Your task to perform on an android device: remove spam from my inbox in the gmail app Image 0: 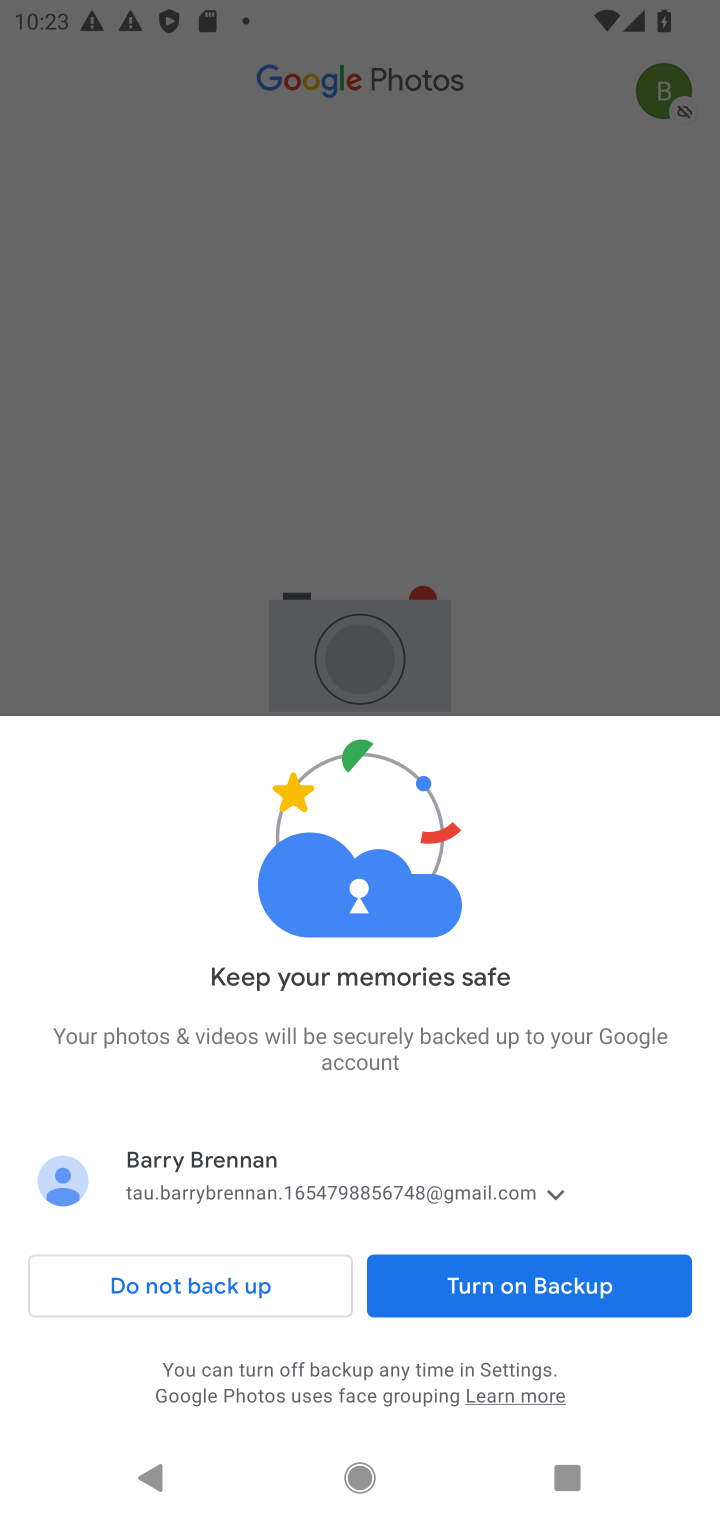
Step 0: click (240, 1291)
Your task to perform on an android device: remove spam from my inbox in the gmail app Image 1: 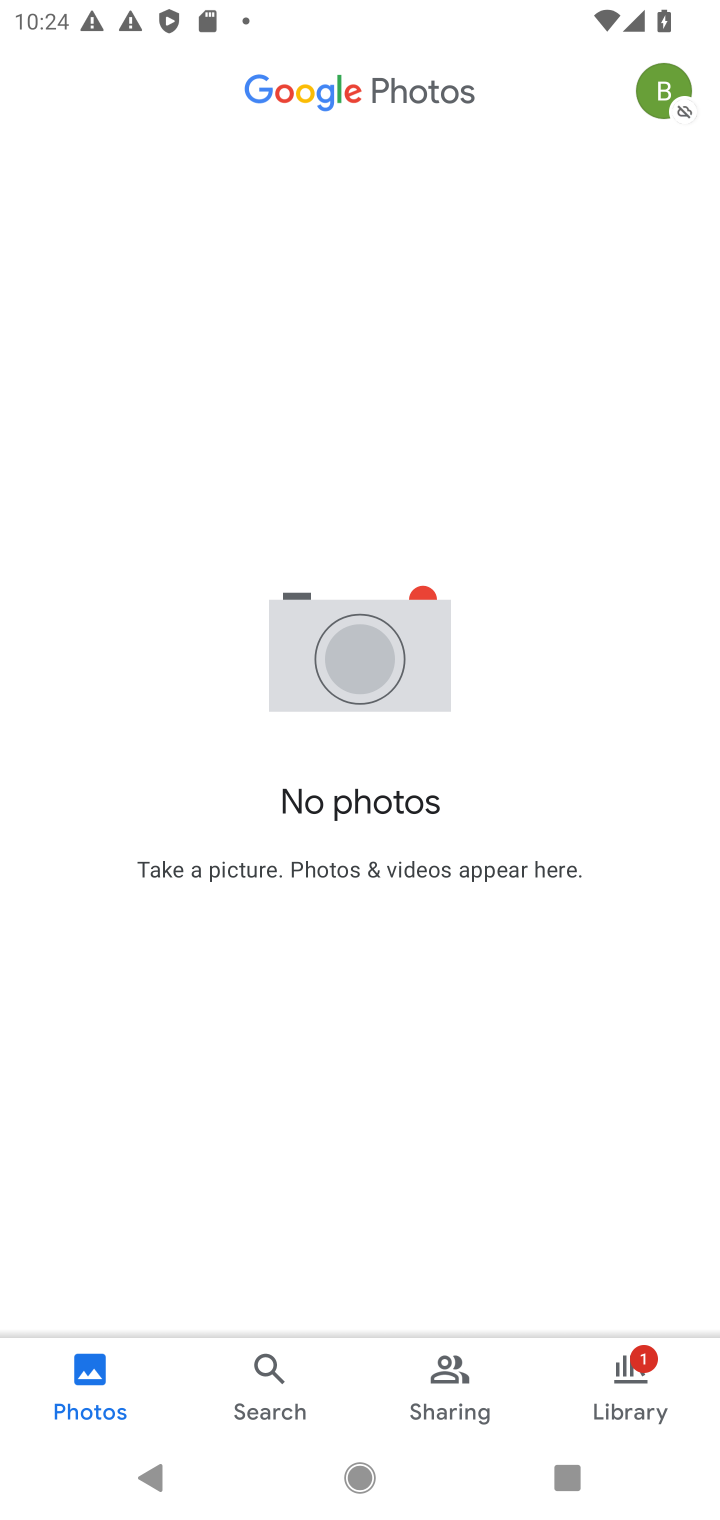
Step 1: click (368, 1471)
Your task to perform on an android device: remove spam from my inbox in the gmail app Image 2: 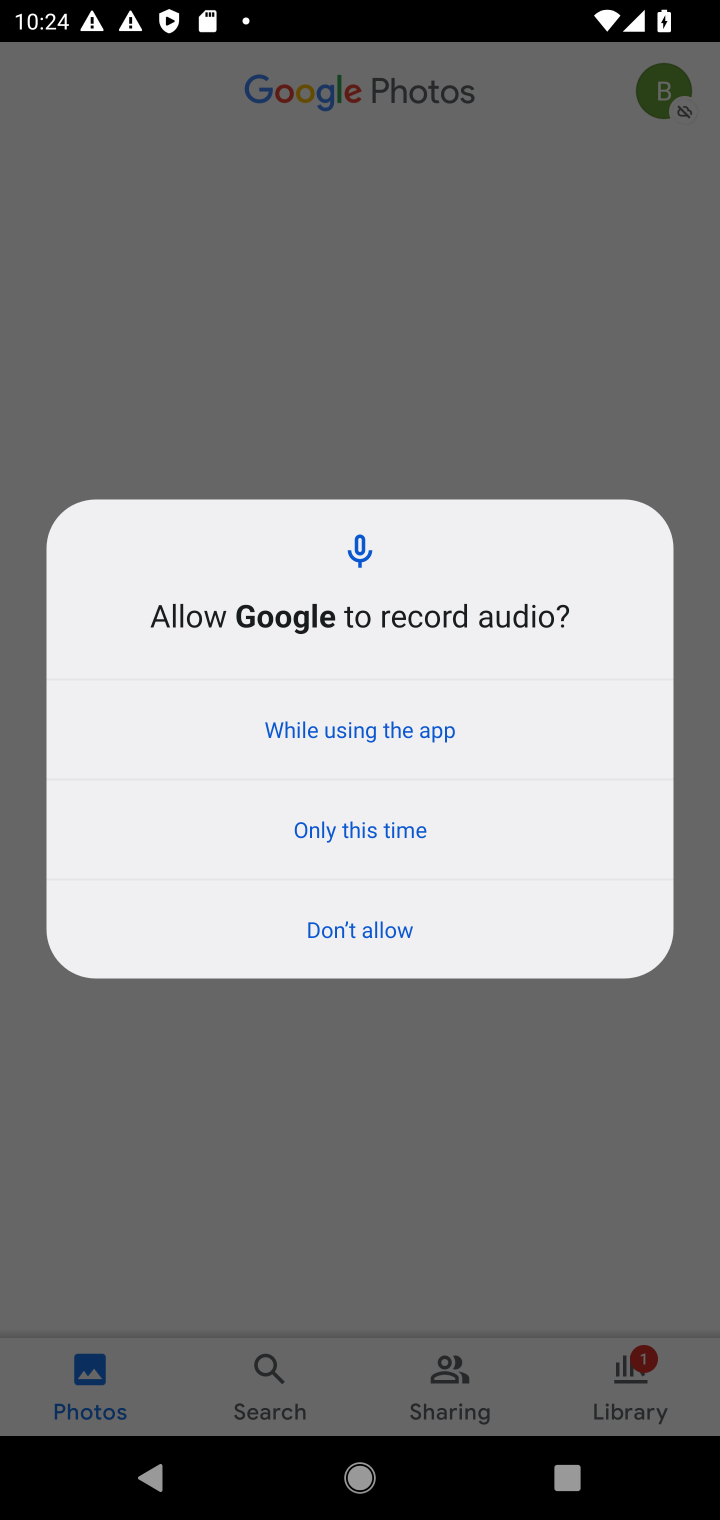
Step 2: press home button
Your task to perform on an android device: remove spam from my inbox in the gmail app Image 3: 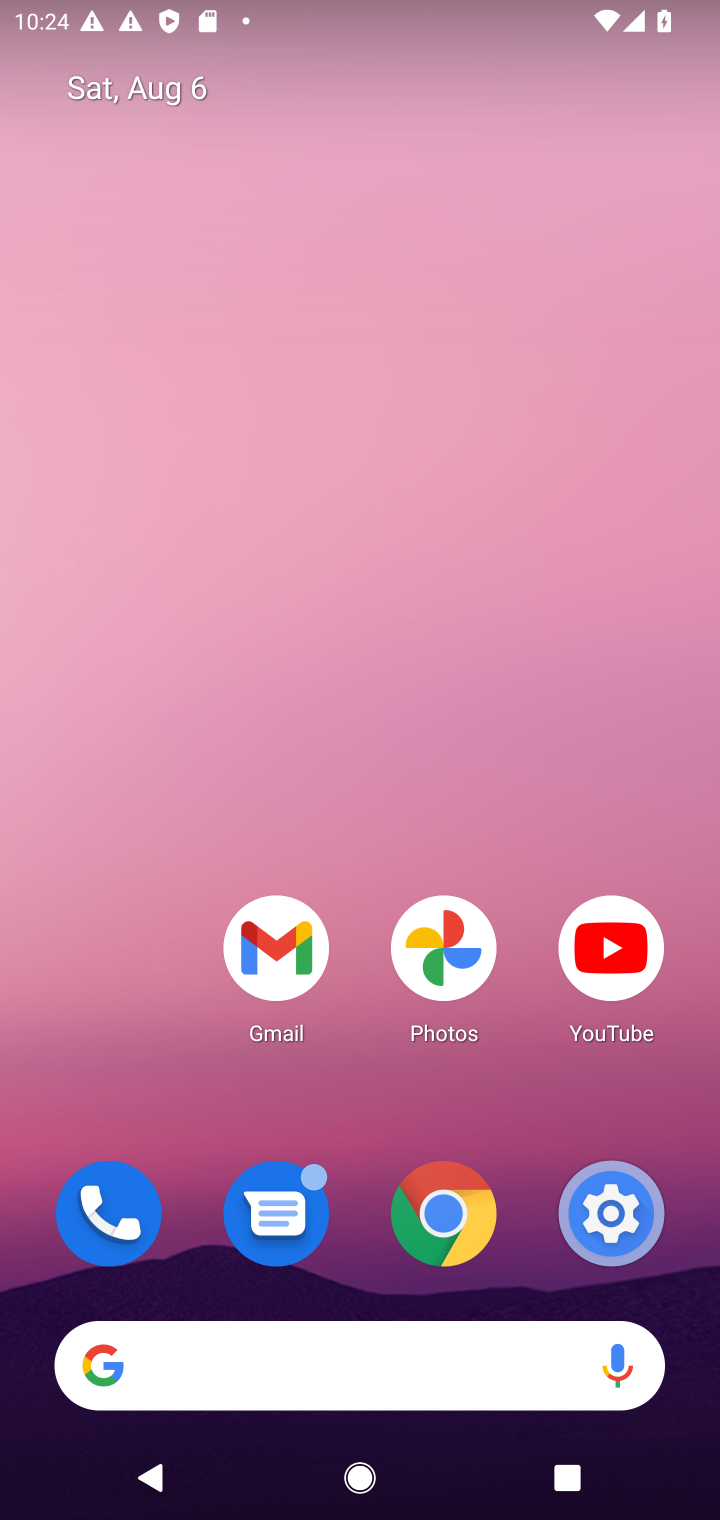
Step 3: drag from (553, 648) to (650, 1414)
Your task to perform on an android device: remove spam from my inbox in the gmail app Image 4: 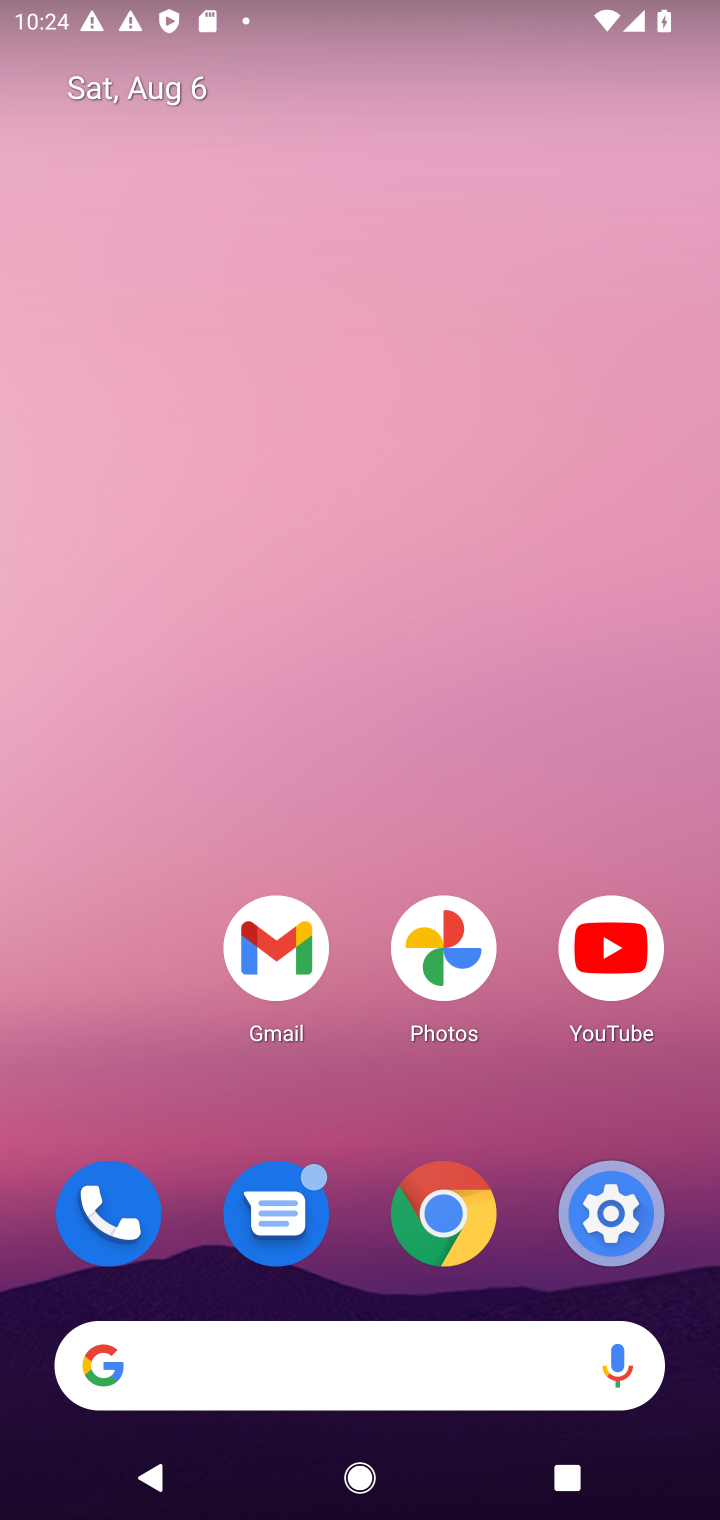
Step 4: drag from (111, 1006) to (206, 209)
Your task to perform on an android device: remove spam from my inbox in the gmail app Image 5: 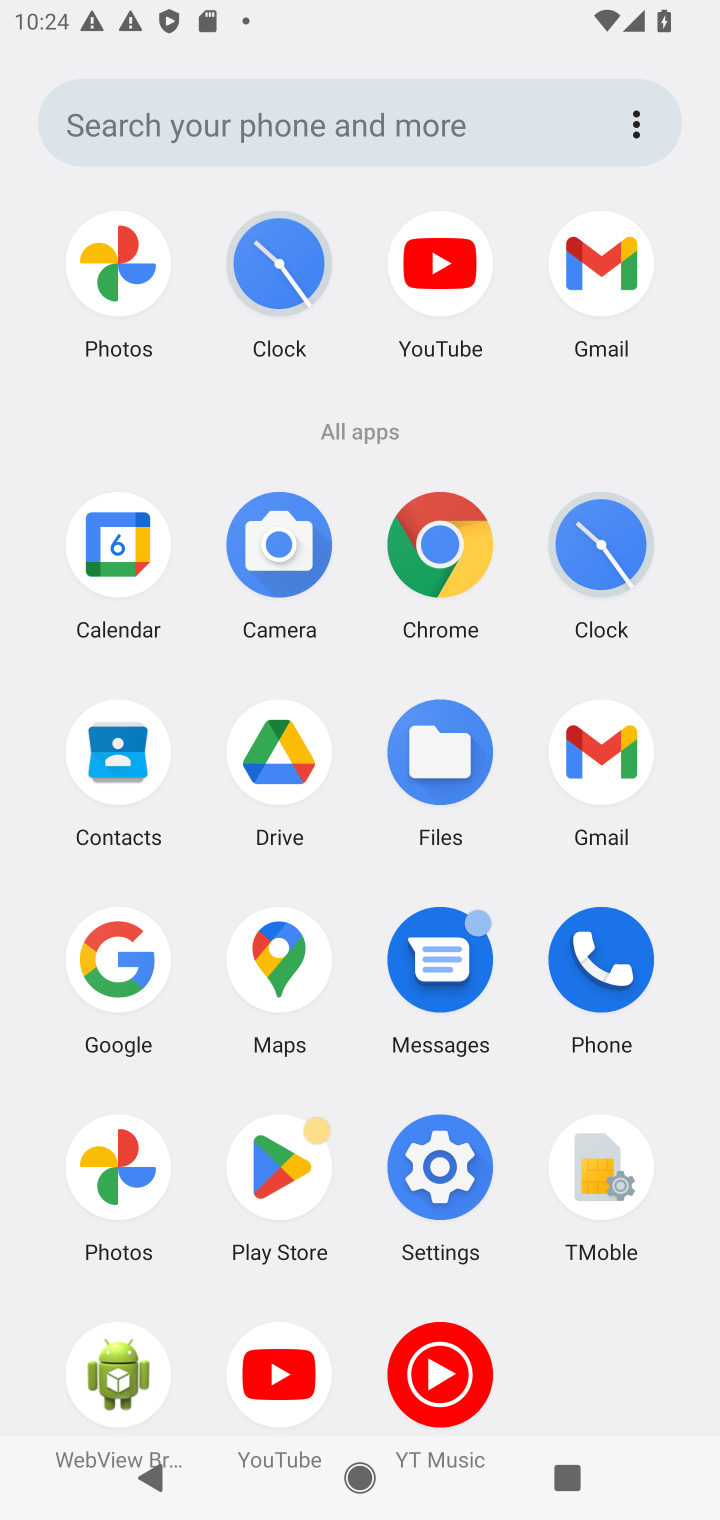
Step 5: click (448, 534)
Your task to perform on an android device: remove spam from my inbox in the gmail app Image 6: 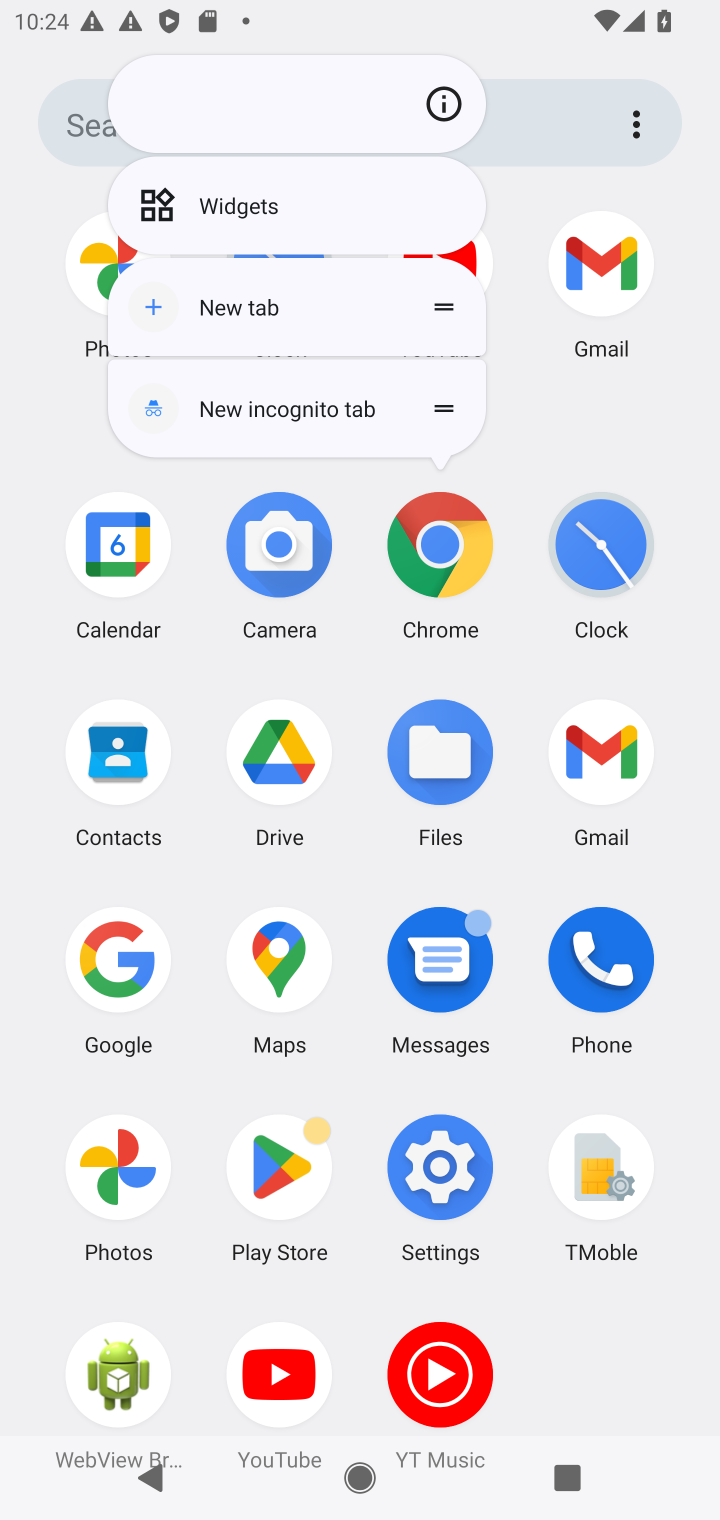
Step 6: click (222, 315)
Your task to perform on an android device: remove spam from my inbox in the gmail app Image 7: 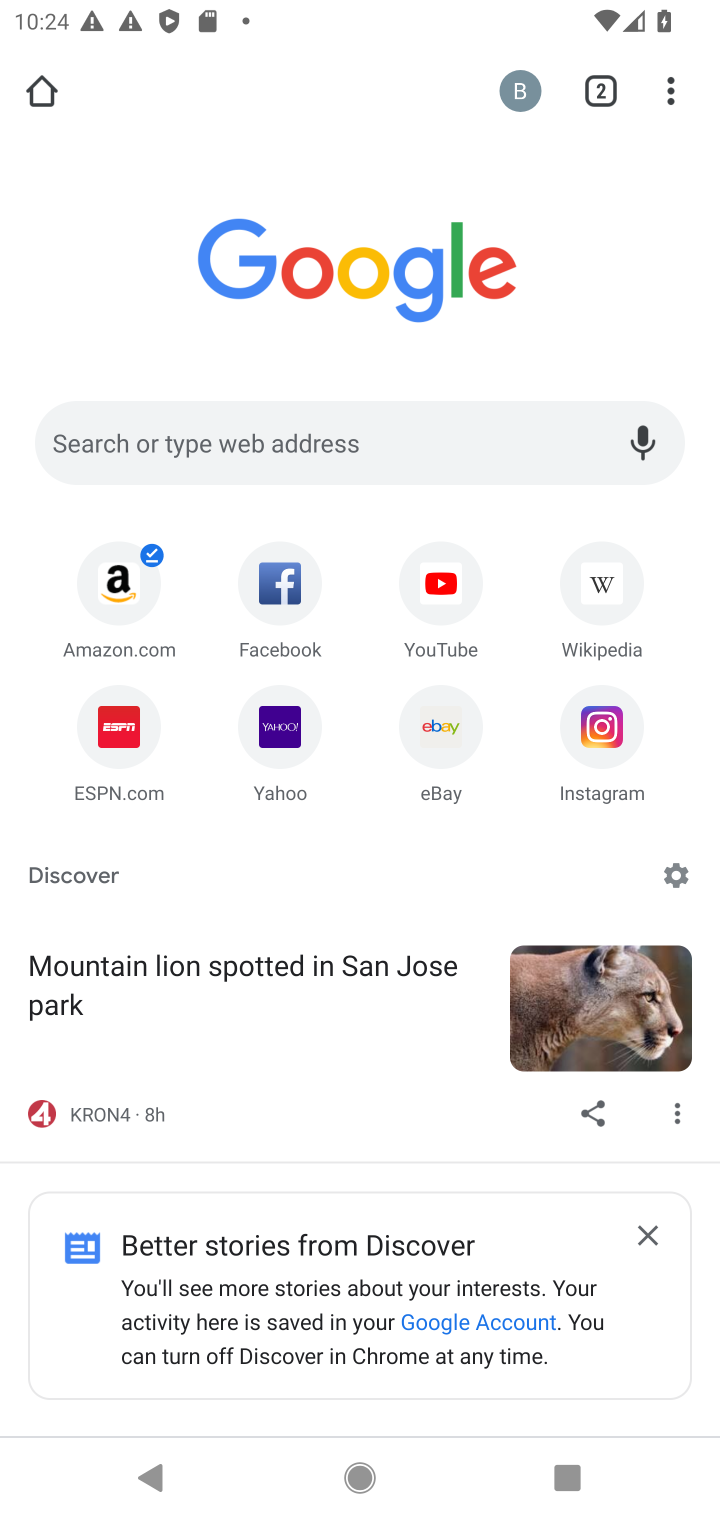
Step 7: task complete